Your task to perform on an android device: change keyboard looks Image 0: 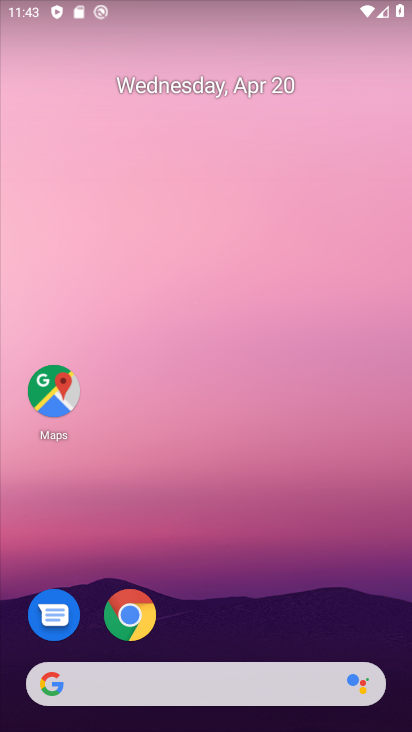
Step 0: click (214, 296)
Your task to perform on an android device: change keyboard looks Image 1: 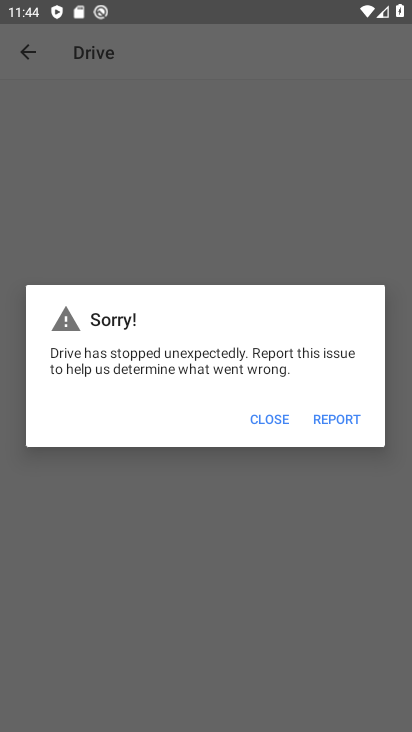
Step 1: press home button
Your task to perform on an android device: change keyboard looks Image 2: 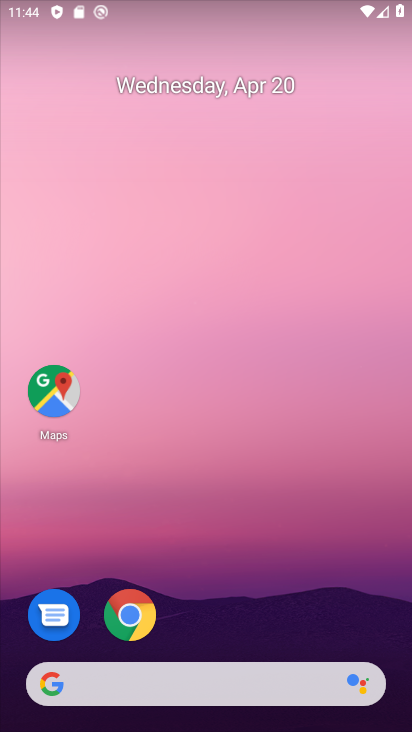
Step 2: drag from (169, 643) to (191, 501)
Your task to perform on an android device: change keyboard looks Image 3: 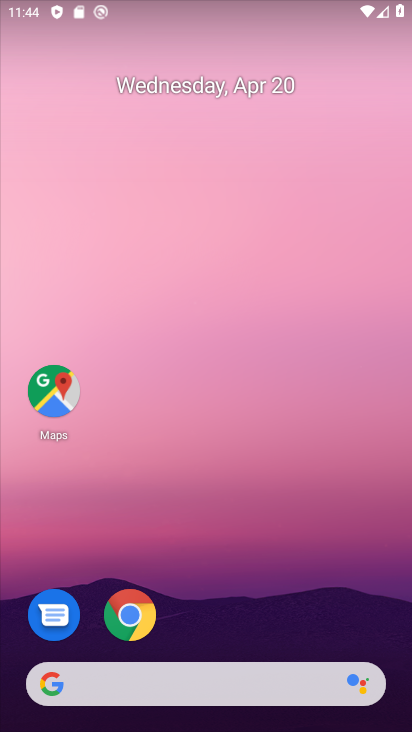
Step 3: drag from (155, 680) to (285, 279)
Your task to perform on an android device: change keyboard looks Image 4: 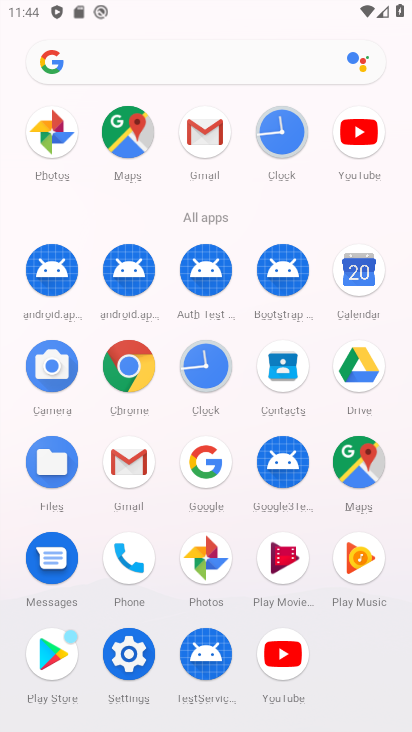
Step 4: click (113, 654)
Your task to perform on an android device: change keyboard looks Image 5: 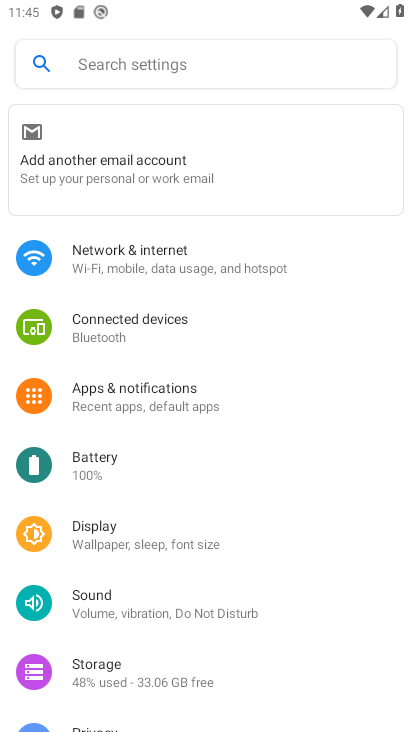
Step 5: drag from (189, 598) to (202, 362)
Your task to perform on an android device: change keyboard looks Image 6: 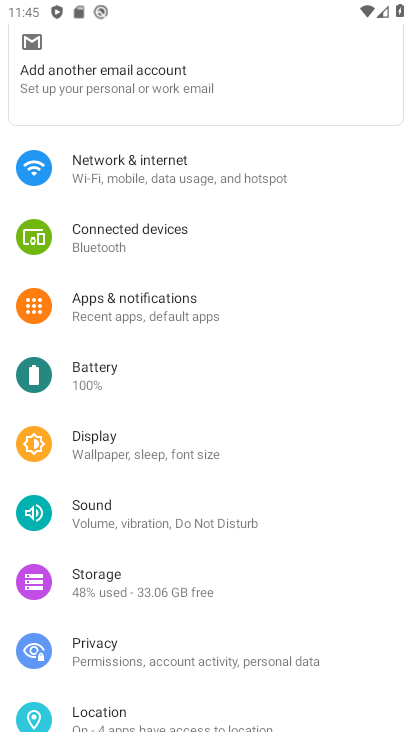
Step 6: drag from (196, 677) to (202, 389)
Your task to perform on an android device: change keyboard looks Image 7: 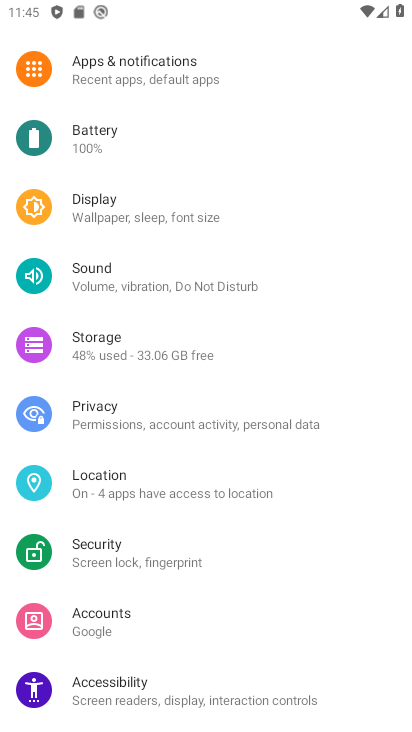
Step 7: drag from (207, 673) to (207, 352)
Your task to perform on an android device: change keyboard looks Image 8: 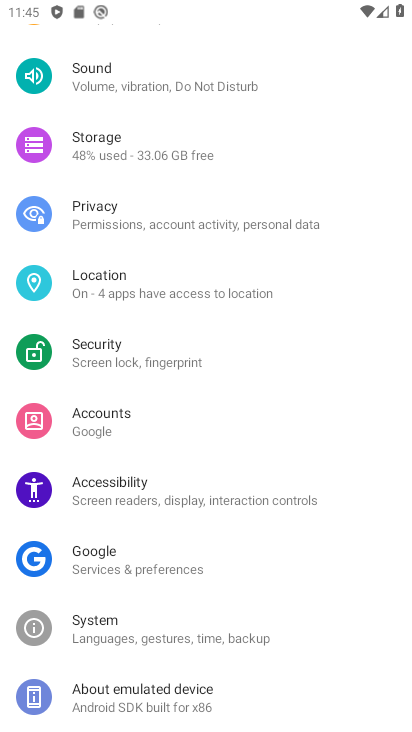
Step 8: click (133, 652)
Your task to perform on an android device: change keyboard looks Image 9: 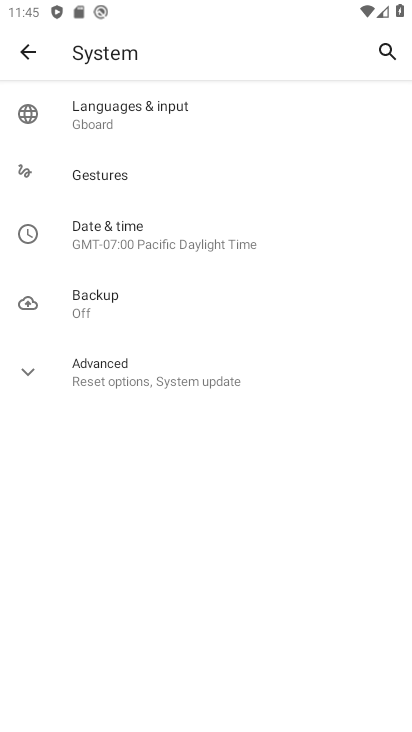
Step 9: click (154, 126)
Your task to perform on an android device: change keyboard looks Image 10: 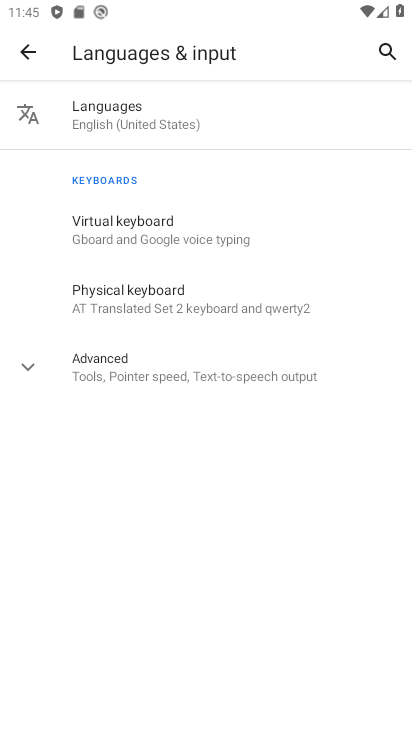
Step 10: click (111, 216)
Your task to perform on an android device: change keyboard looks Image 11: 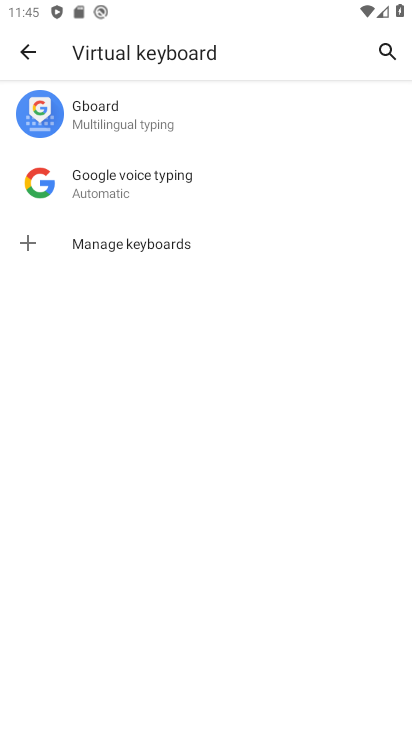
Step 11: click (142, 247)
Your task to perform on an android device: change keyboard looks Image 12: 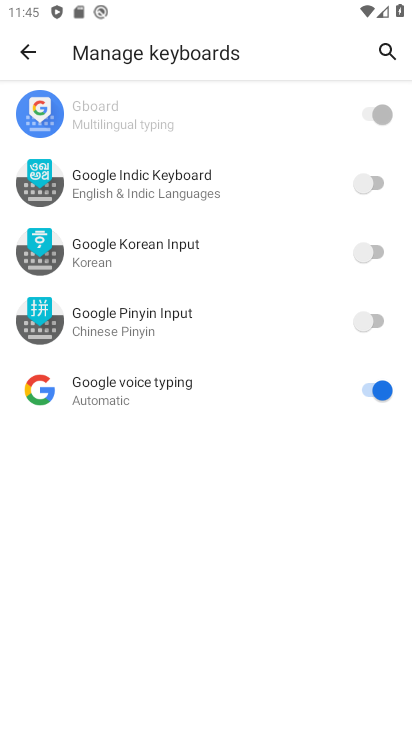
Step 12: click (196, 199)
Your task to perform on an android device: change keyboard looks Image 13: 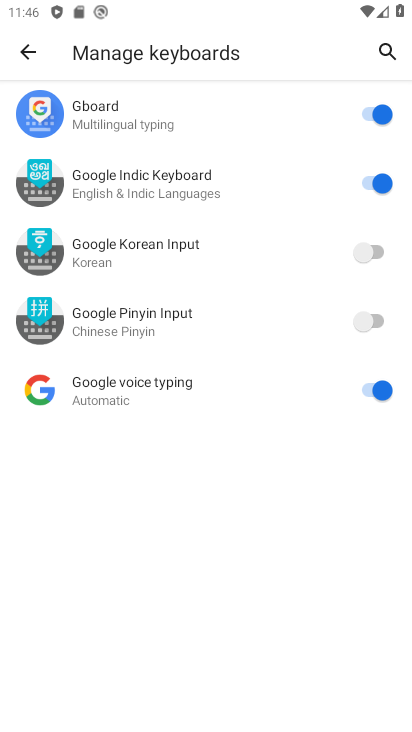
Step 13: task complete